Your task to perform on an android device: change notifications settings Image 0: 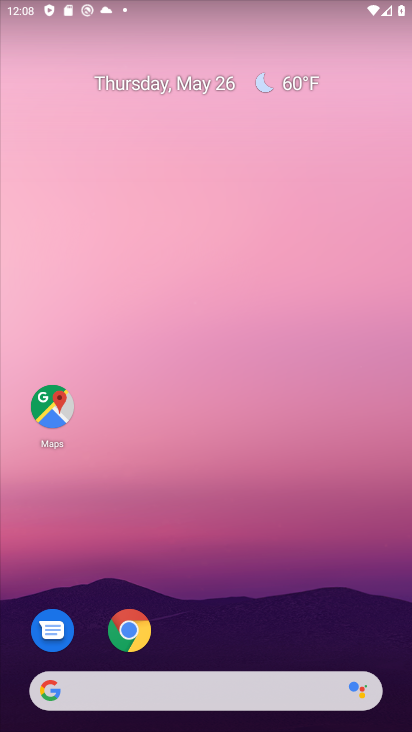
Step 0: drag from (328, 525) to (251, 10)
Your task to perform on an android device: change notifications settings Image 1: 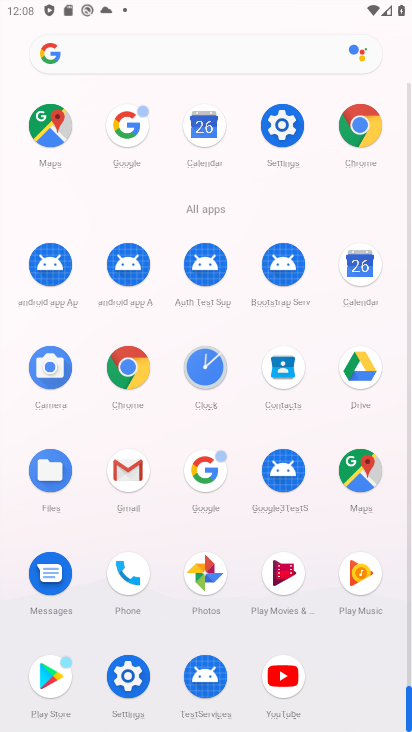
Step 1: click (299, 119)
Your task to perform on an android device: change notifications settings Image 2: 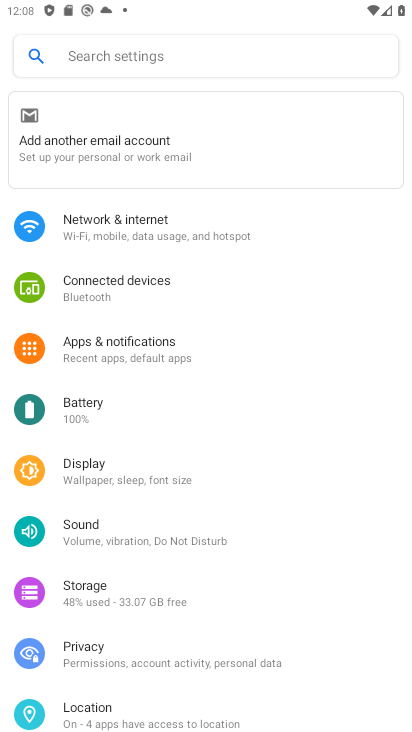
Step 2: click (139, 347)
Your task to perform on an android device: change notifications settings Image 3: 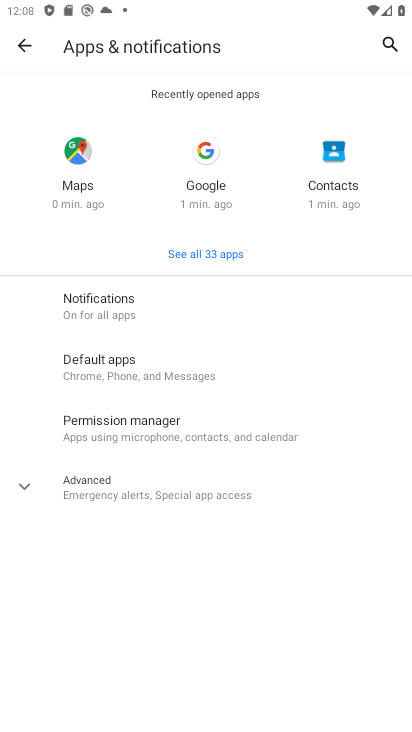
Step 3: click (105, 301)
Your task to perform on an android device: change notifications settings Image 4: 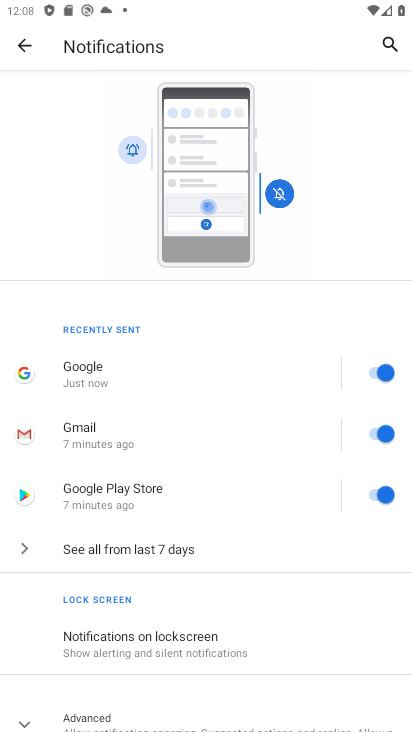
Step 4: drag from (254, 643) to (326, 249)
Your task to perform on an android device: change notifications settings Image 5: 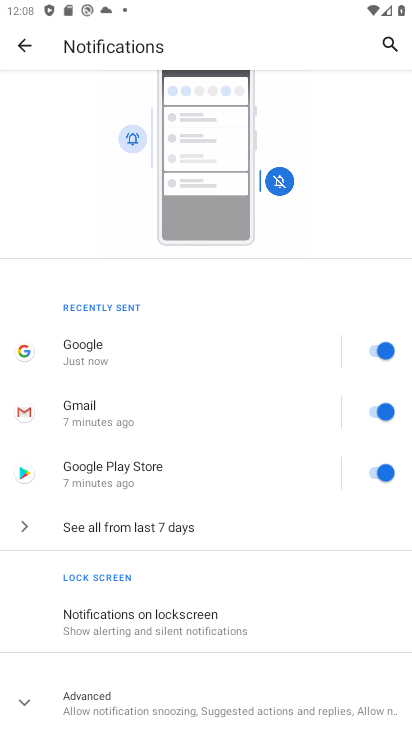
Step 5: click (139, 704)
Your task to perform on an android device: change notifications settings Image 6: 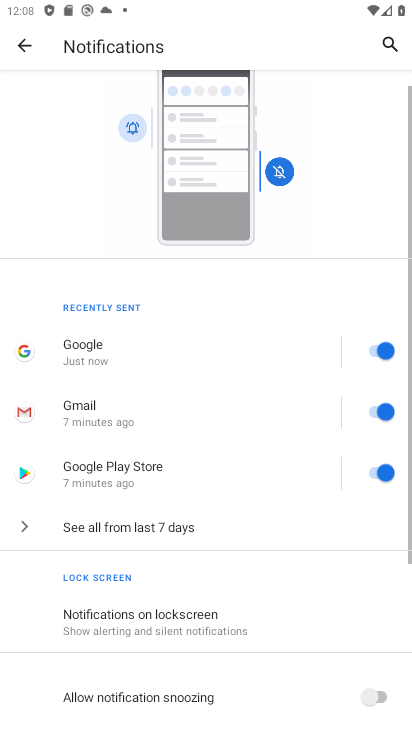
Step 6: drag from (146, 647) to (120, 332)
Your task to perform on an android device: change notifications settings Image 7: 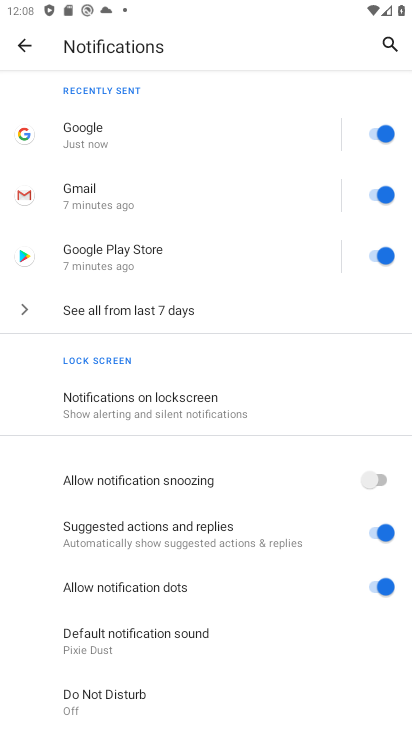
Step 7: drag from (189, 671) to (178, 334)
Your task to perform on an android device: change notifications settings Image 8: 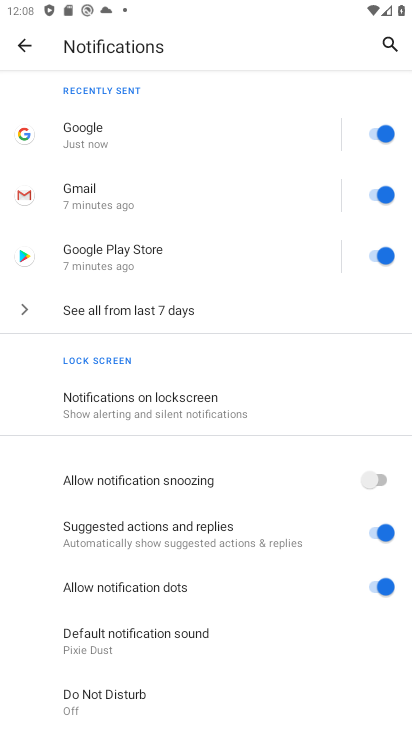
Step 8: drag from (199, 679) to (148, 289)
Your task to perform on an android device: change notifications settings Image 9: 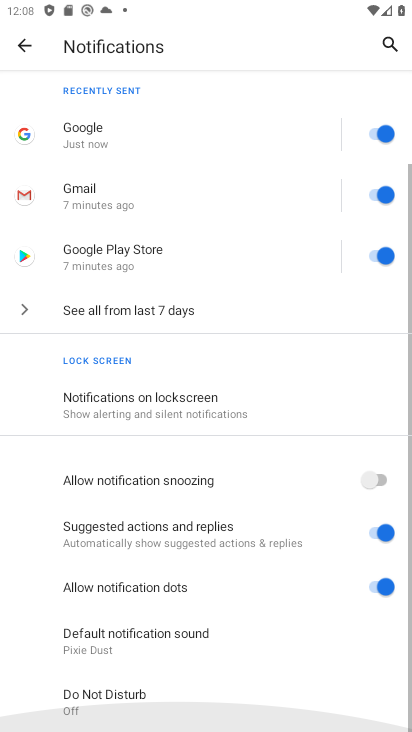
Step 9: drag from (171, 249) to (233, 631)
Your task to perform on an android device: change notifications settings Image 10: 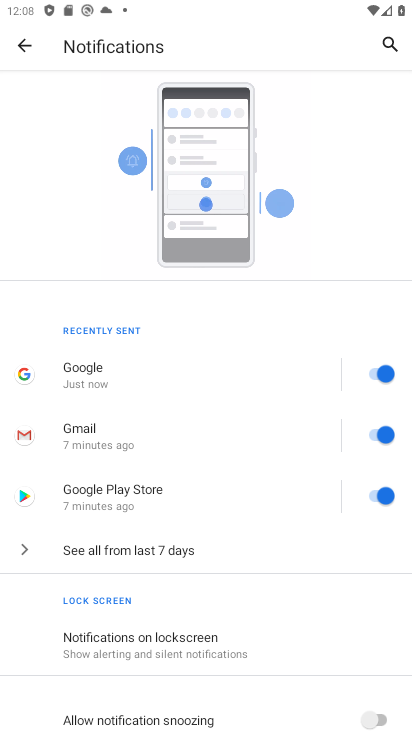
Step 10: click (379, 495)
Your task to perform on an android device: change notifications settings Image 11: 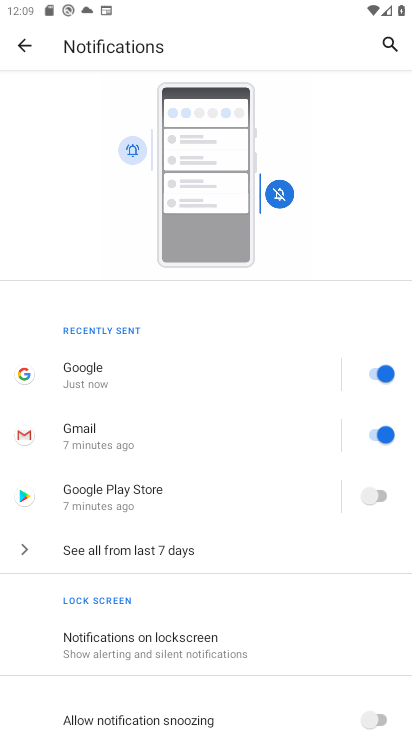
Step 11: task complete